Your task to perform on an android device: Open the Play Movies app and select the watchlist tab. Image 0: 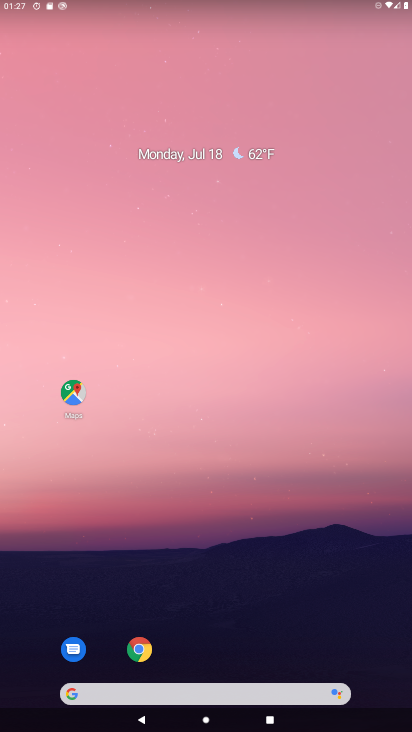
Step 0: drag from (6, 714) to (165, 347)
Your task to perform on an android device: Open the Play Movies app and select the watchlist tab. Image 1: 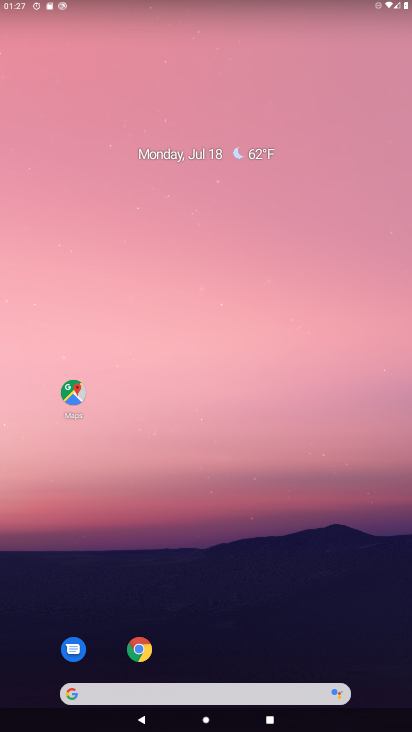
Step 1: drag from (57, 603) to (304, 41)
Your task to perform on an android device: Open the Play Movies app and select the watchlist tab. Image 2: 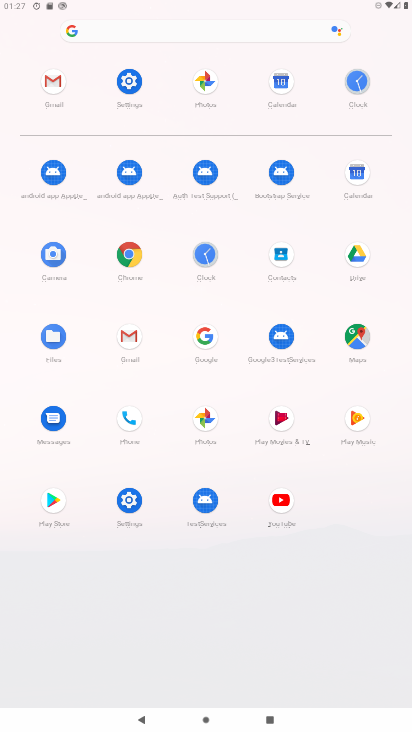
Step 2: click (273, 419)
Your task to perform on an android device: Open the Play Movies app and select the watchlist tab. Image 3: 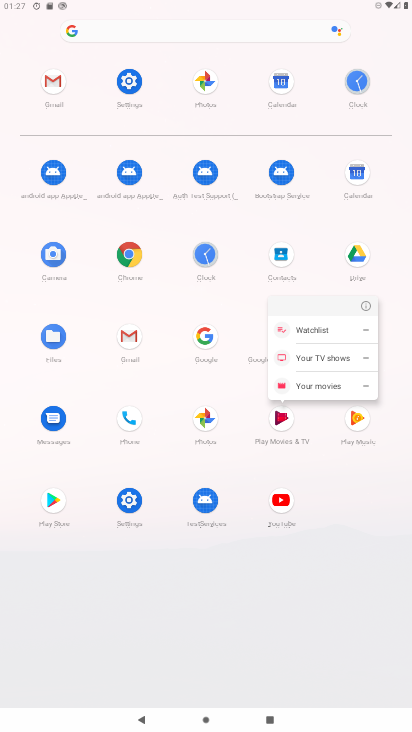
Step 3: click (272, 414)
Your task to perform on an android device: Open the Play Movies app and select the watchlist tab. Image 4: 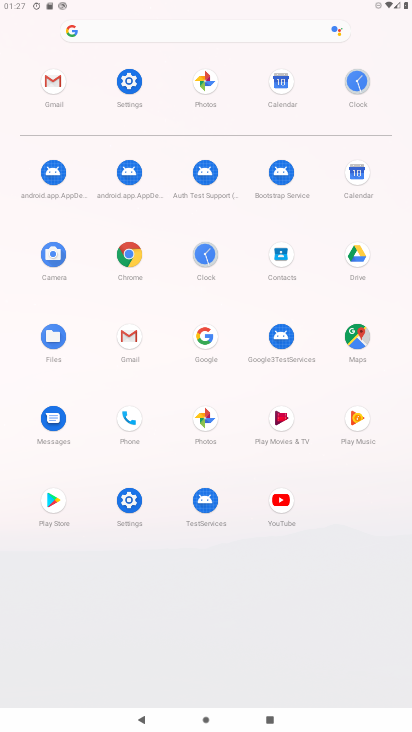
Step 4: click (292, 431)
Your task to perform on an android device: Open the Play Movies app and select the watchlist tab. Image 5: 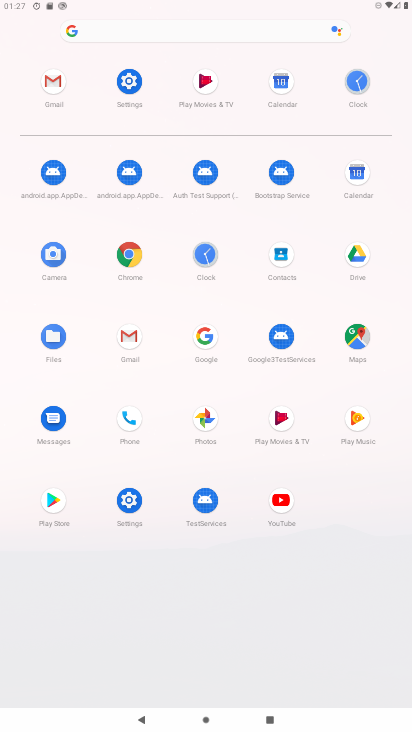
Step 5: click (271, 428)
Your task to perform on an android device: Open the Play Movies app and select the watchlist tab. Image 6: 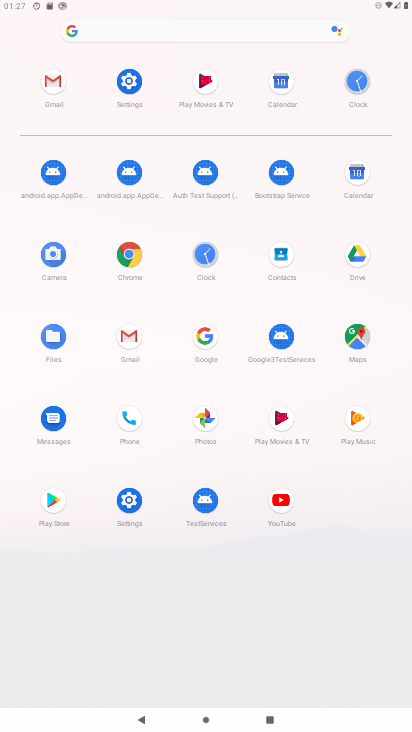
Step 6: task complete